Your task to perform on an android device: toggle priority inbox in the gmail app Image 0: 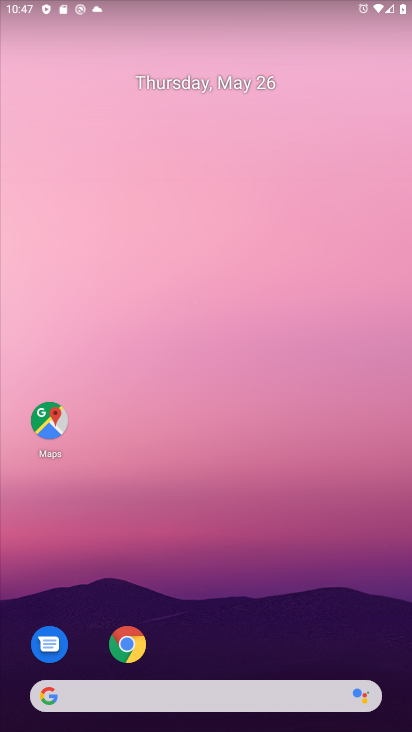
Step 0: drag from (192, 652) to (174, 171)
Your task to perform on an android device: toggle priority inbox in the gmail app Image 1: 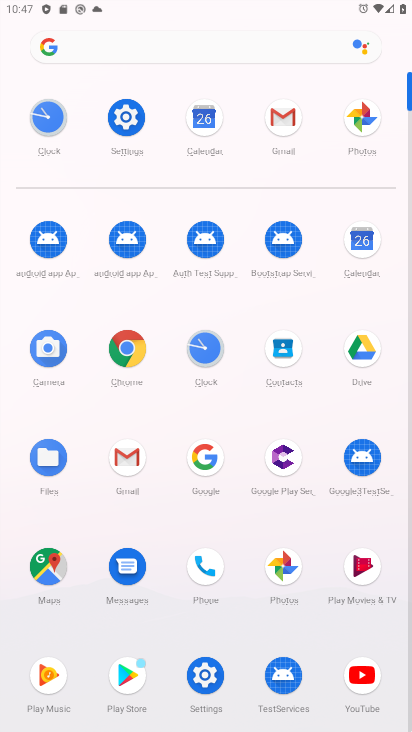
Step 1: click (300, 113)
Your task to perform on an android device: toggle priority inbox in the gmail app Image 2: 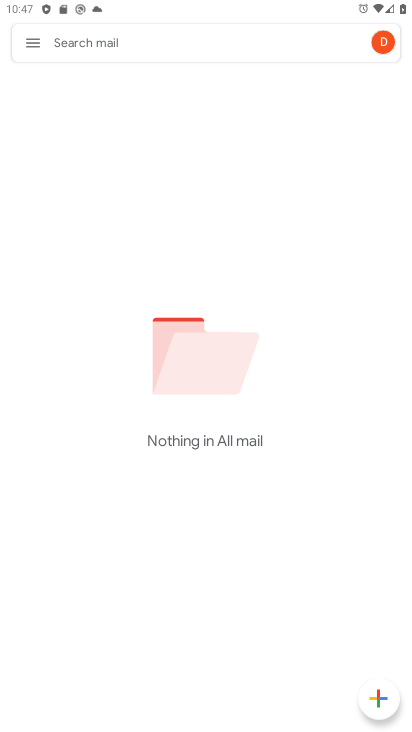
Step 2: click (33, 43)
Your task to perform on an android device: toggle priority inbox in the gmail app Image 3: 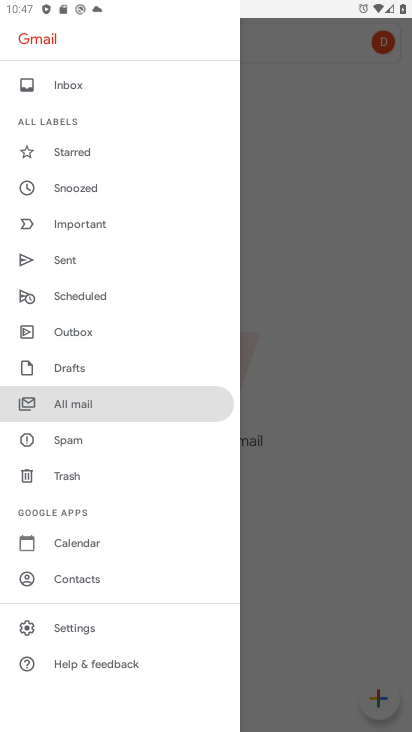
Step 3: click (98, 631)
Your task to perform on an android device: toggle priority inbox in the gmail app Image 4: 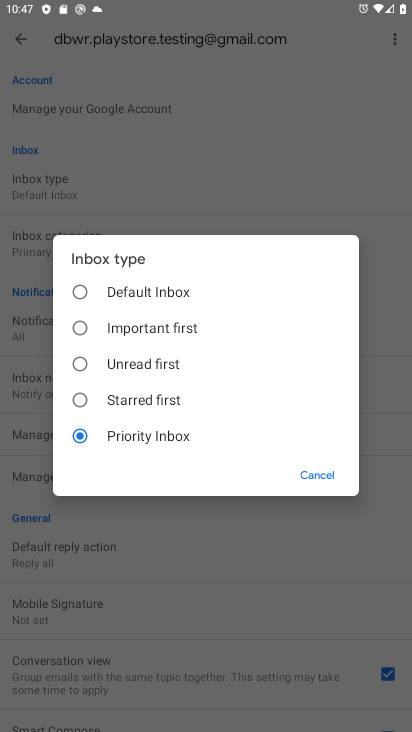
Step 4: click (137, 298)
Your task to perform on an android device: toggle priority inbox in the gmail app Image 5: 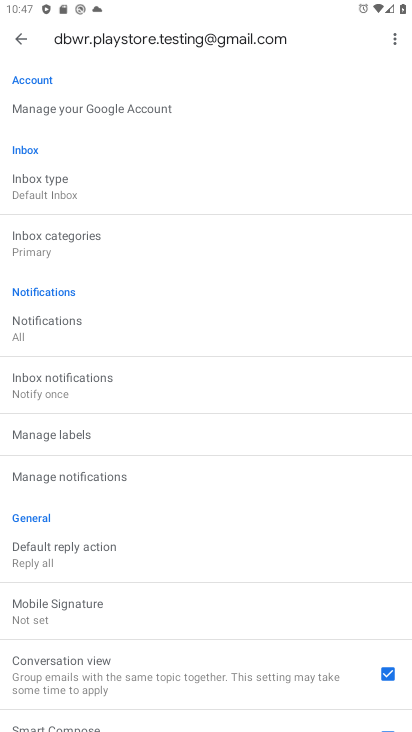
Step 5: task complete